Your task to perform on an android device: Show me popular videos on Youtube Image 0: 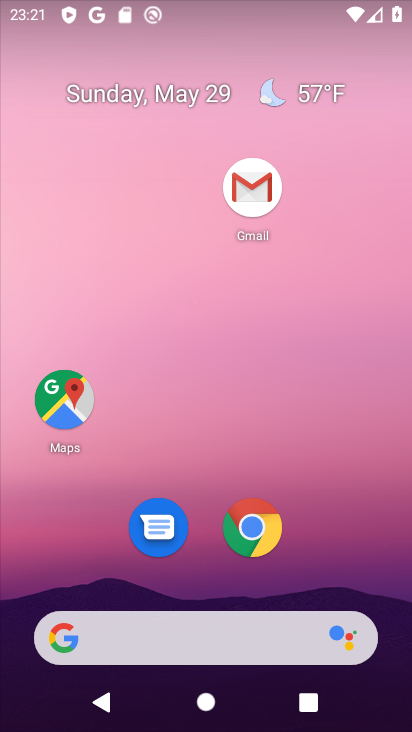
Step 0: drag from (350, 559) to (269, 18)
Your task to perform on an android device: Show me popular videos on Youtube Image 1: 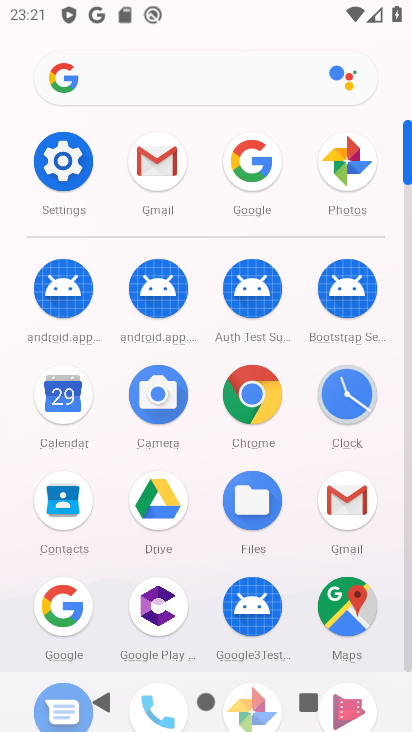
Step 1: drag from (279, 577) to (293, 243)
Your task to perform on an android device: Show me popular videos on Youtube Image 2: 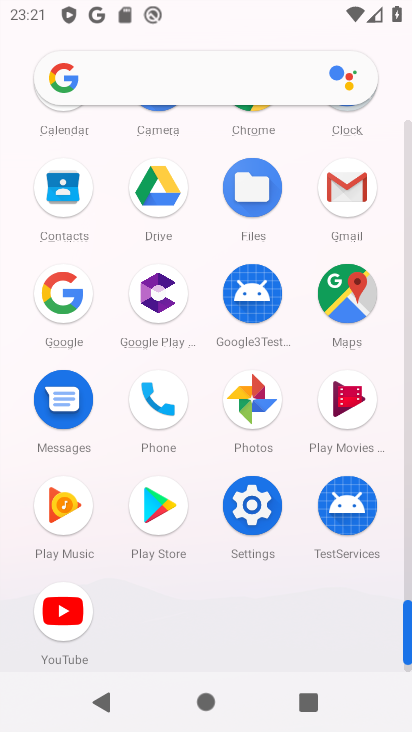
Step 2: click (63, 612)
Your task to perform on an android device: Show me popular videos on Youtube Image 3: 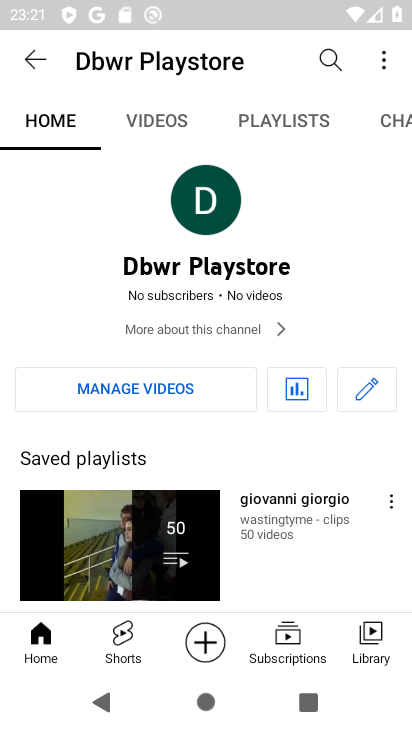
Step 3: click (325, 62)
Your task to perform on an android device: Show me popular videos on Youtube Image 4: 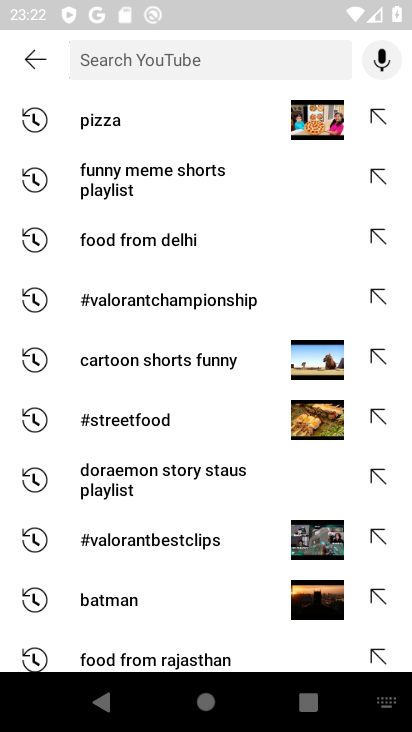
Step 4: type "popular videos"
Your task to perform on an android device: Show me popular videos on Youtube Image 5: 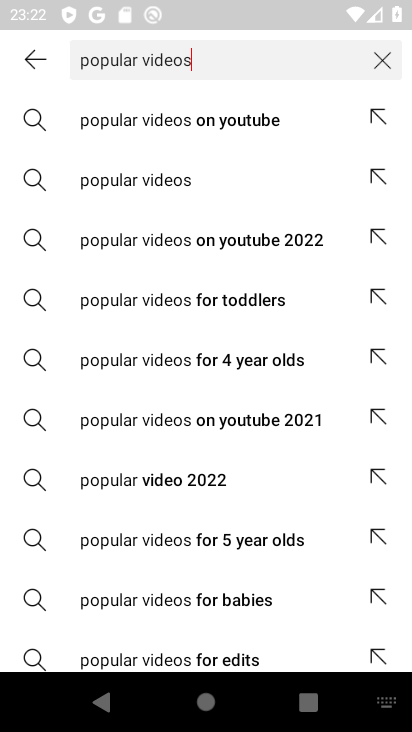
Step 5: click (191, 118)
Your task to perform on an android device: Show me popular videos on Youtube Image 6: 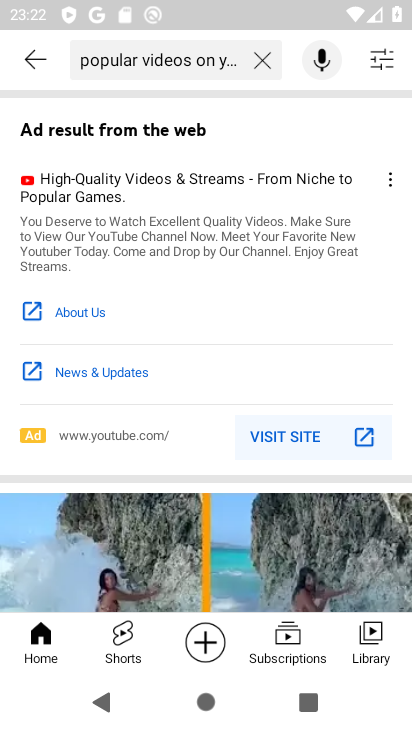
Step 6: task complete